Your task to perform on an android device: Go to Reddit.com Image 0: 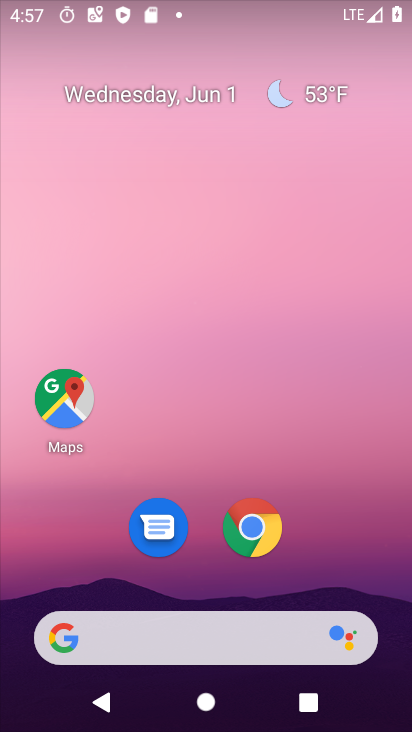
Step 0: drag from (297, 449) to (326, 63)
Your task to perform on an android device: Go to Reddit.com Image 1: 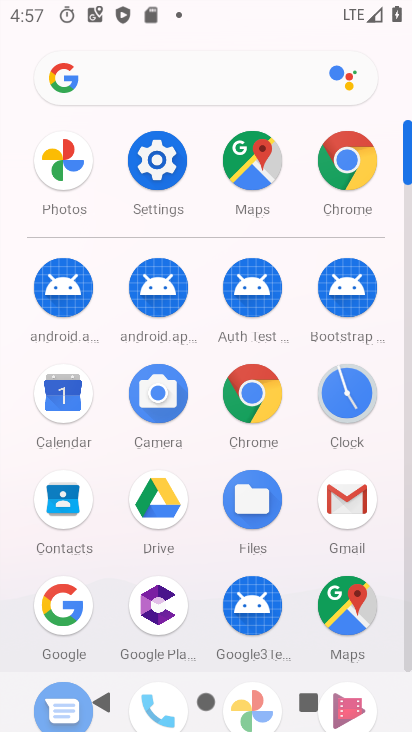
Step 1: click (261, 390)
Your task to perform on an android device: Go to Reddit.com Image 2: 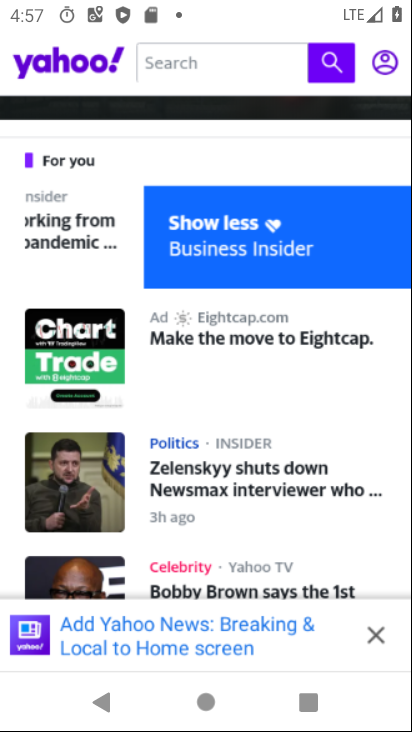
Step 2: drag from (247, 140) to (214, 498)
Your task to perform on an android device: Go to Reddit.com Image 3: 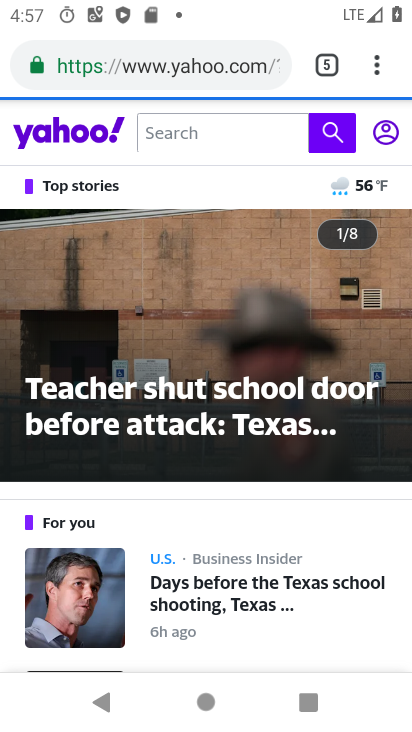
Step 3: click (149, 63)
Your task to perform on an android device: Go to Reddit.com Image 4: 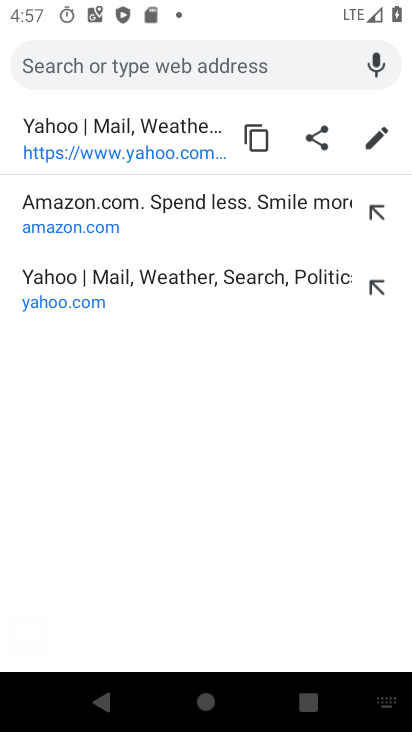
Step 4: type " Reddit.com"
Your task to perform on an android device: Go to Reddit.com Image 5: 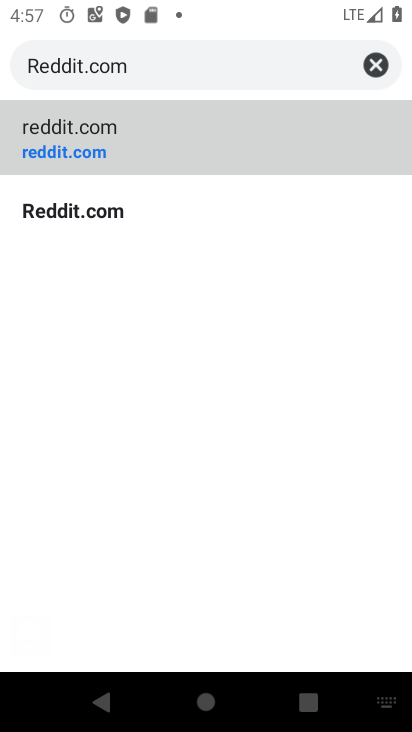
Step 5: click (90, 153)
Your task to perform on an android device: Go to Reddit.com Image 6: 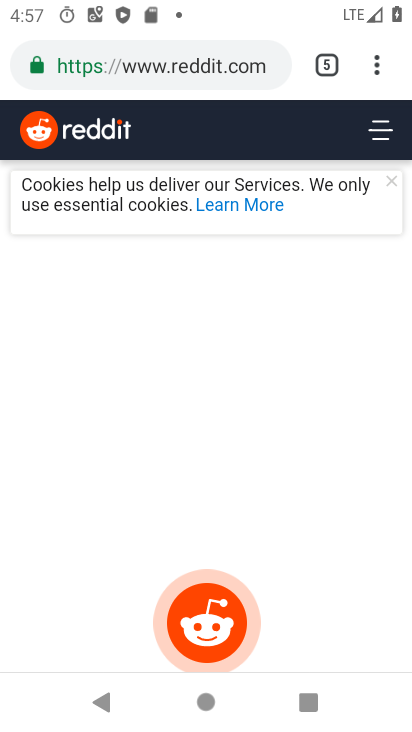
Step 6: task complete